Your task to perform on an android device: Show me recent news Image 0: 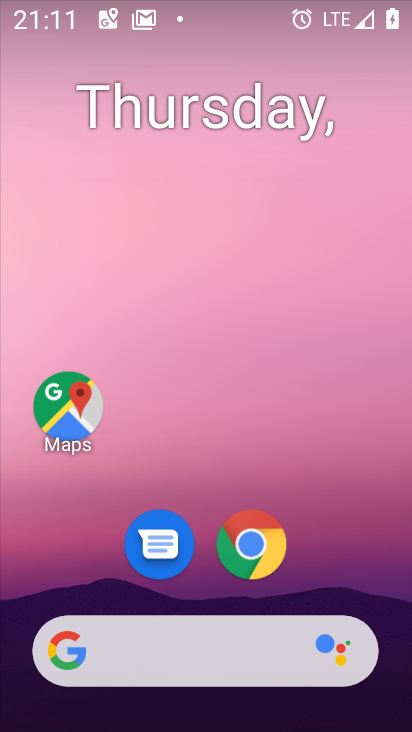
Step 0: click (175, 666)
Your task to perform on an android device: Show me recent news Image 1: 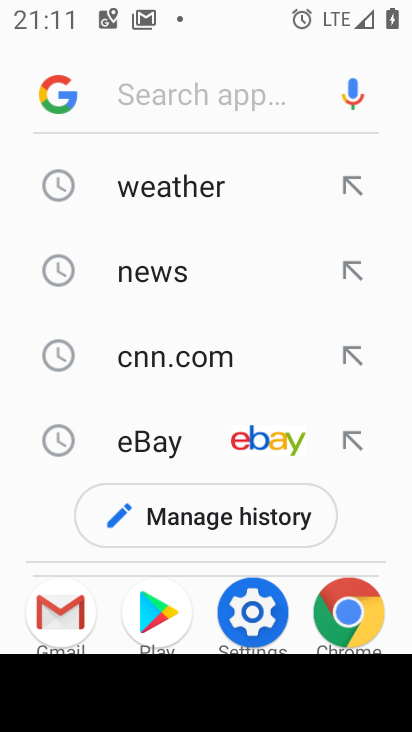
Step 1: click (67, 102)
Your task to perform on an android device: Show me recent news Image 2: 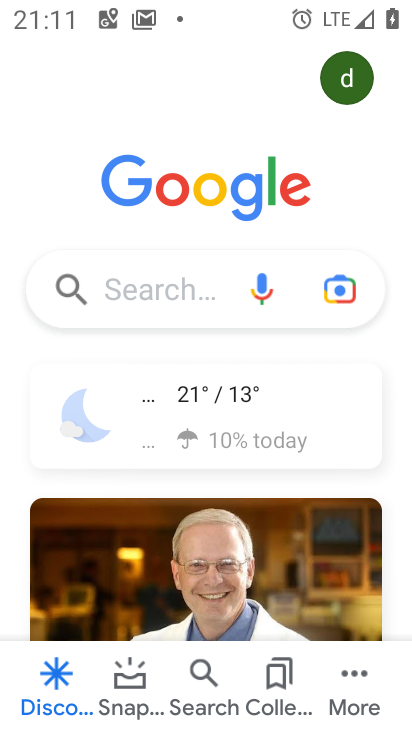
Step 2: drag from (97, 489) to (126, 35)
Your task to perform on an android device: Show me recent news Image 3: 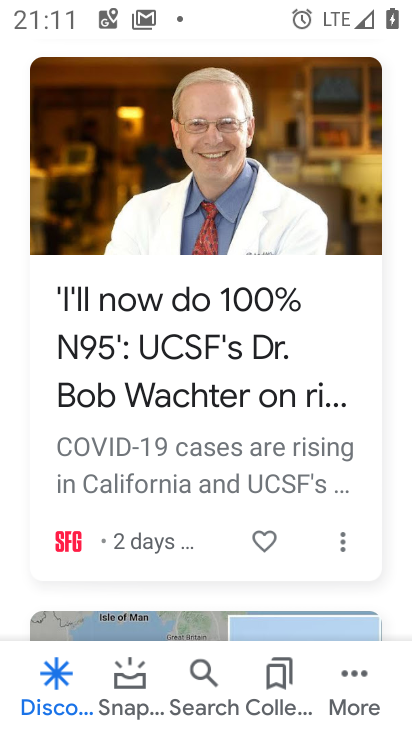
Step 3: drag from (257, 404) to (276, 14)
Your task to perform on an android device: Show me recent news Image 4: 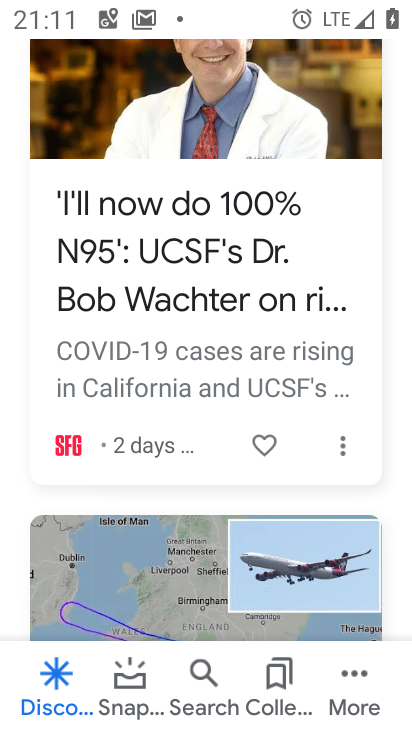
Step 4: click (300, 489)
Your task to perform on an android device: Show me recent news Image 5: 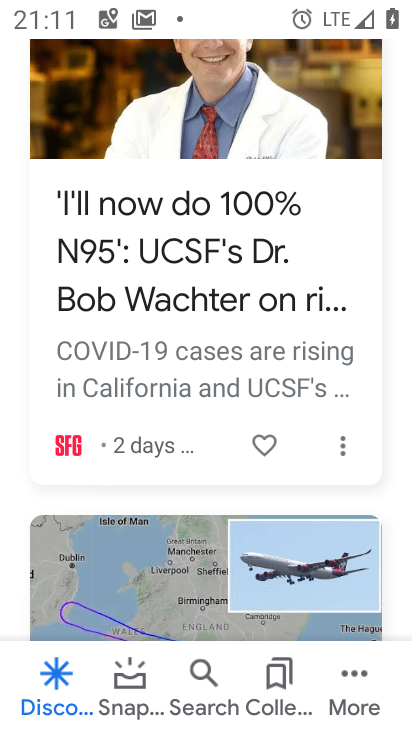
Step 5: task complete